Your task to perform on an android device: Turn on the flashlight Image 0: 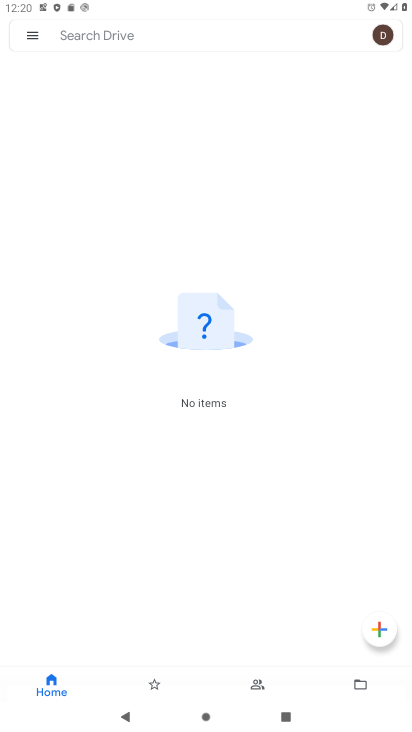
Step 0: press home button
Your task to perform on an android device: Turn on the flashlight Image 1: 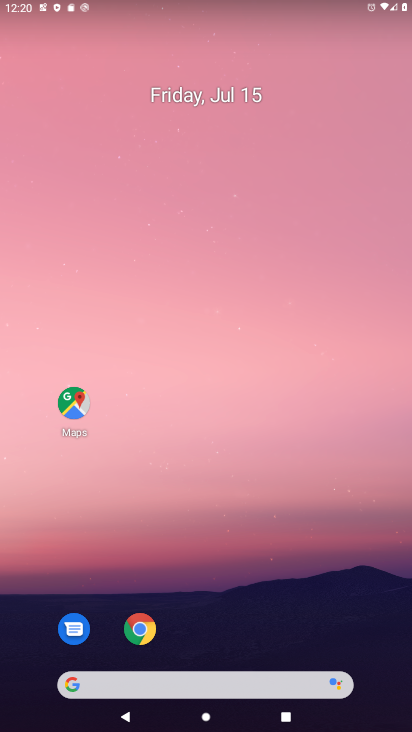
Step 1: drag from (149, 41) to (83, 425)
Your task to perform on an android device: Turn on the flashlight Image 2: 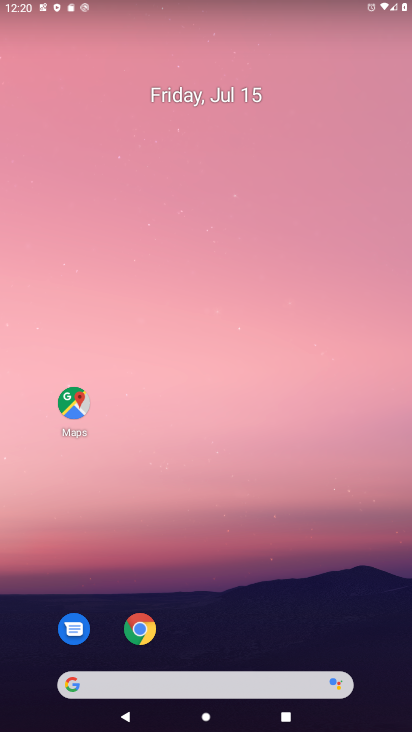
Step 2: drag from (192, 30) to (233, 401)
Your task to perform on an android device: Turn on the flashlight Image 3: 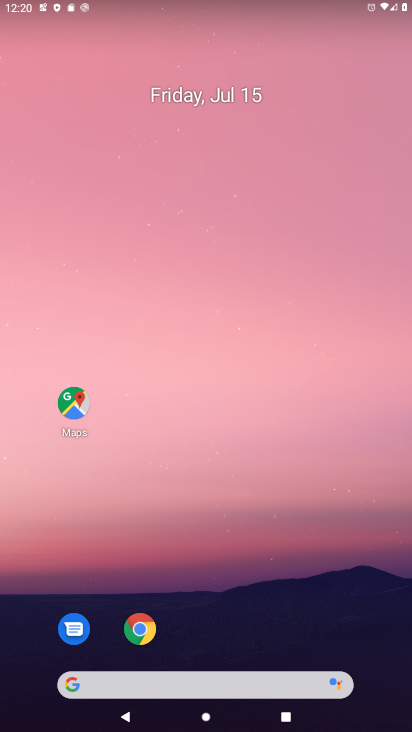
Step 3: drag from (229, 182) to (265, 550)
Your task to perform on an android device: Turn on the flashlight Image 4: 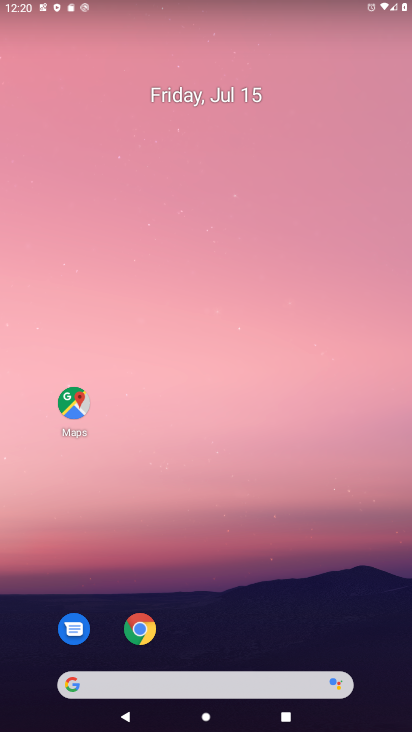
Step 4: drag from (231, 84) to (255, 663)
Your task to perform on an android device: Turn on the flashlight Image 5: 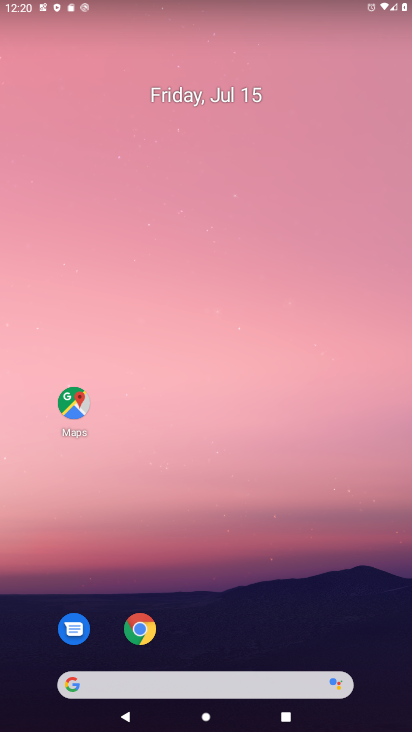
Step 5: drag from (221, 28) to (158, 492)
Your task to perform on an android device: Turn on the flashlight Image 6: 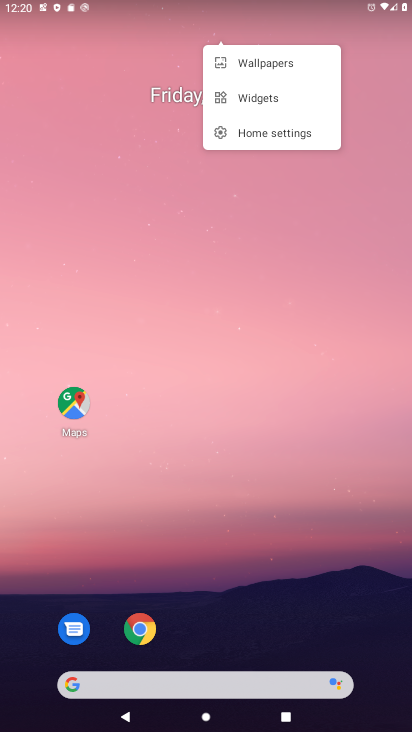
Step 6: drag from (181, 4) to (122, 579)
Your task to perform on an android device: Turn on the flashlight Image 7: 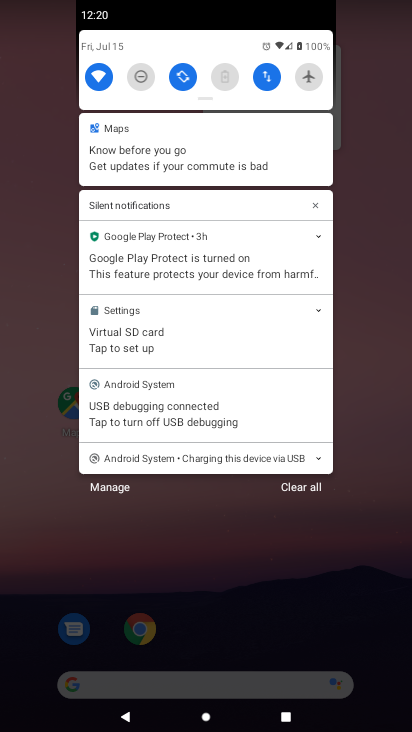
Step 7: click (213, 318)
Your task to perform on an android device: Turn on the flashlight Image 8: 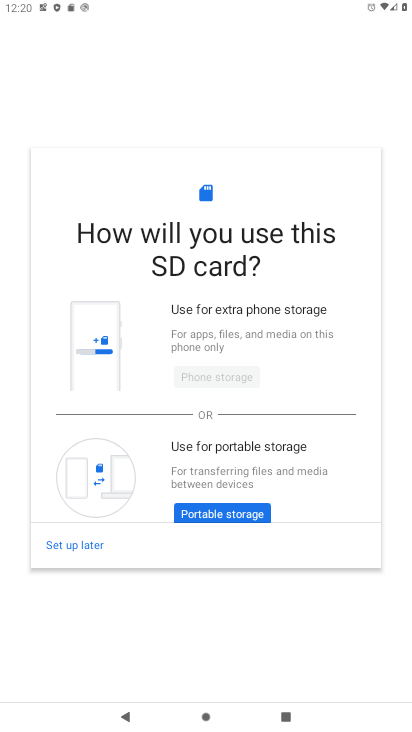
Step 8: task complete